Your task to perform on an android device: move a message to another label in the gmail app Image 0: 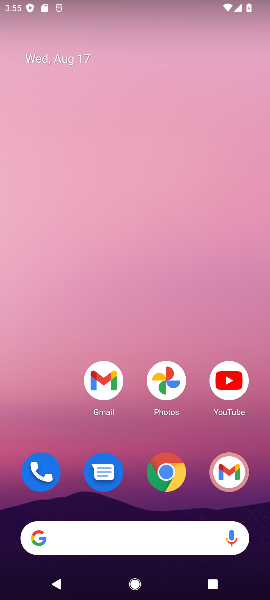
Step 0: click (114, 387)
Your task to perform on an android device: move a message to another label in the gmail app Image 1: 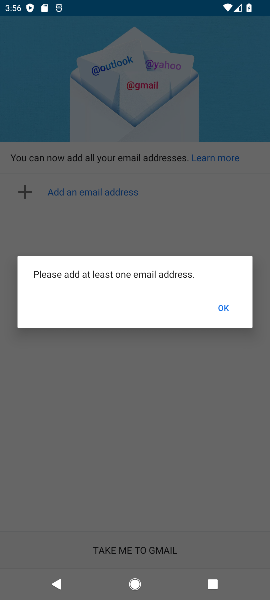
Step 1: task complete